Your task to perform on an android device: Open maps Image 0: 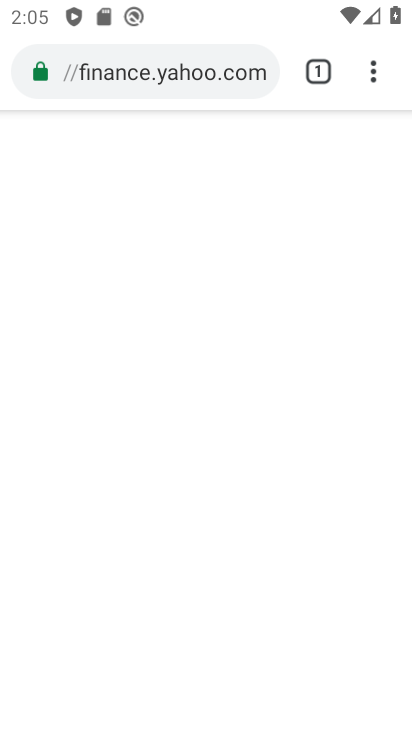
Step 0: press home button
Your task to perform on an android device: Open maps Image 1: 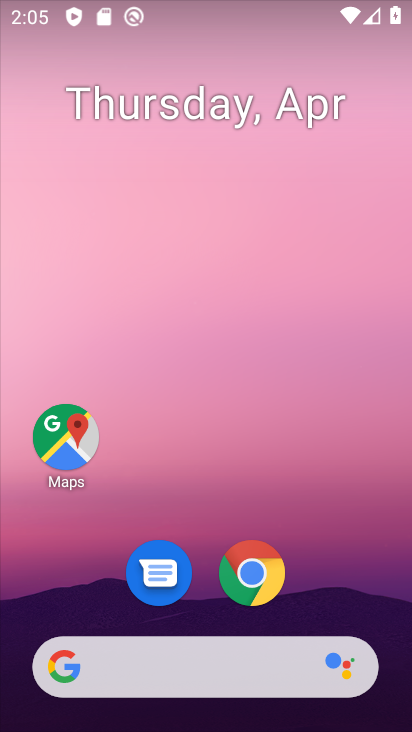
Step 1: drag from (338, 603) to (240, 45)
Your task to perform on an android device: Open maps Image 2: 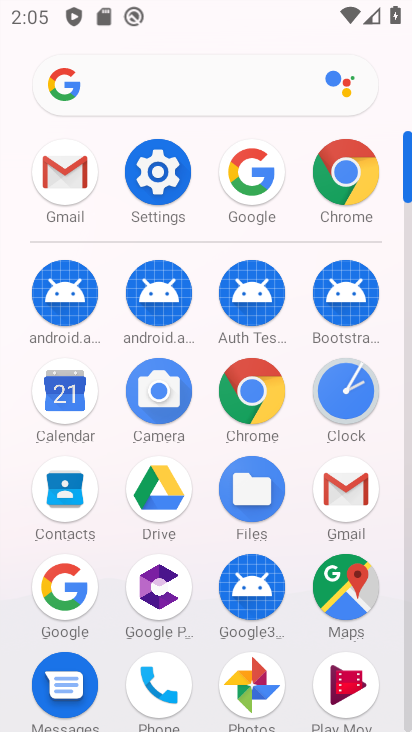
Step 2: click (341, 579)
Your task to perform on an android device: Open maps Image 3: 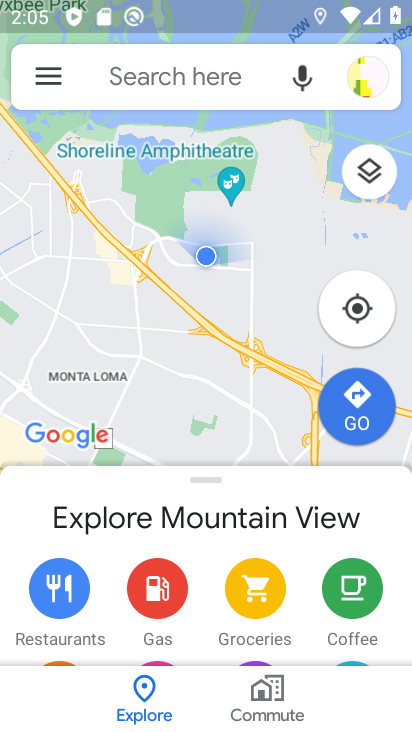
Step 3: task complete